Your task to perform on an android device: see tabs open on other devices in the chrome app Image 0: 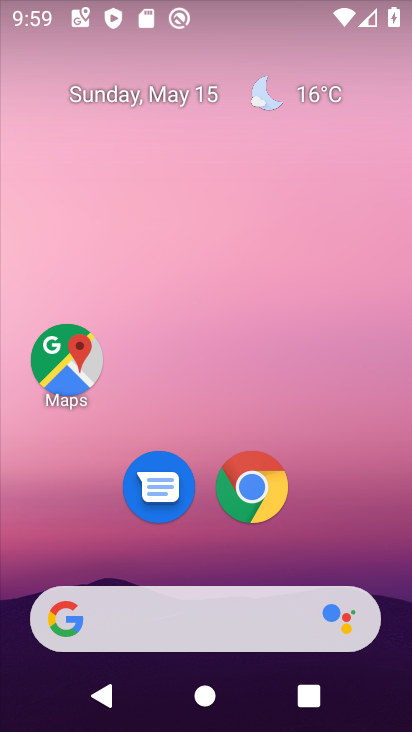
Step 0: click (255, 485)
Your task to perform on an android device: see tabs open on other devices in the chrome app Image 1: 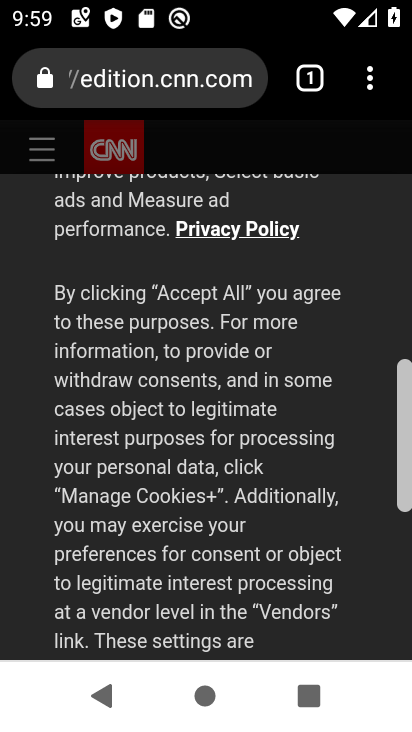
Step 1: click (371, 85)
Your task to perform on an android device: see tabs open on other devices in the chrome app Image 2: 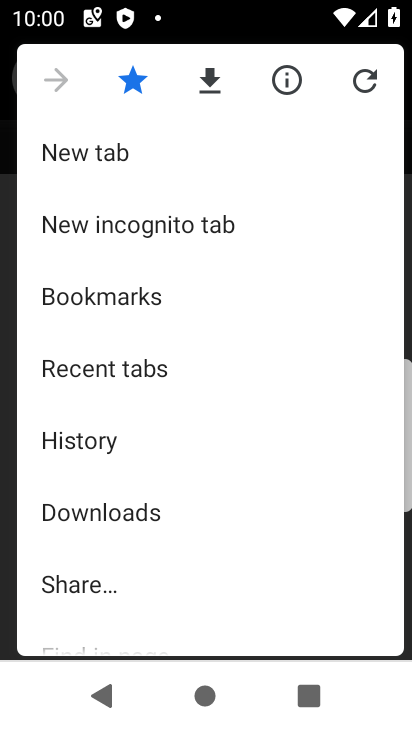
Step 2: drag from (221, 567) to (220, 474)
Your task to perform on an android device: see tabs open on other devices in the chrome app Image 3: 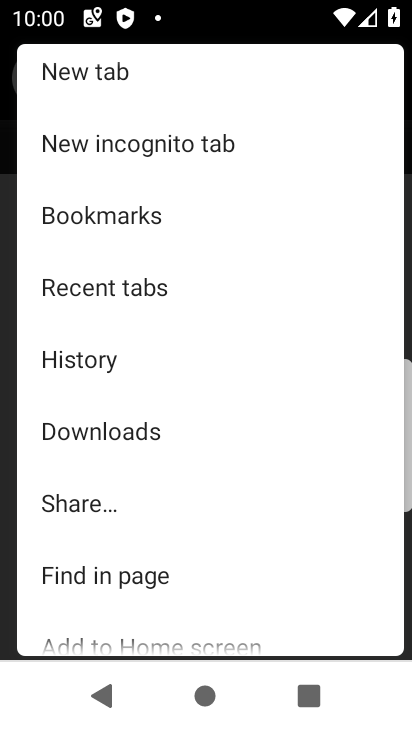
Step 3: click (85, 281)
Your task to perform on an android device: see tabs open on other devices in the chrome app Image 4: 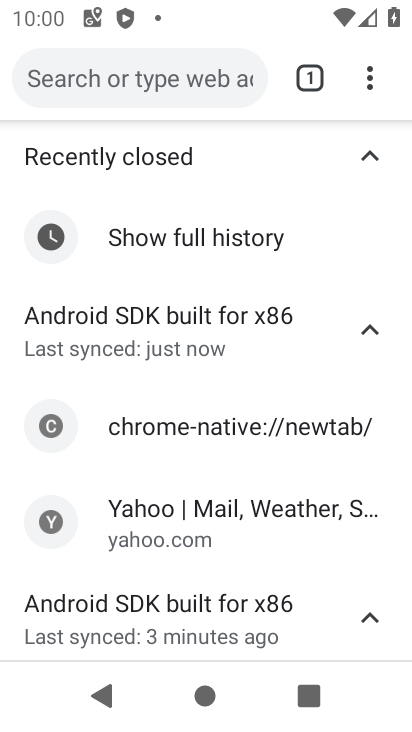
Step 4: task complete